Your task to perform on an android device: Find coffee shops on Maps Image 0: 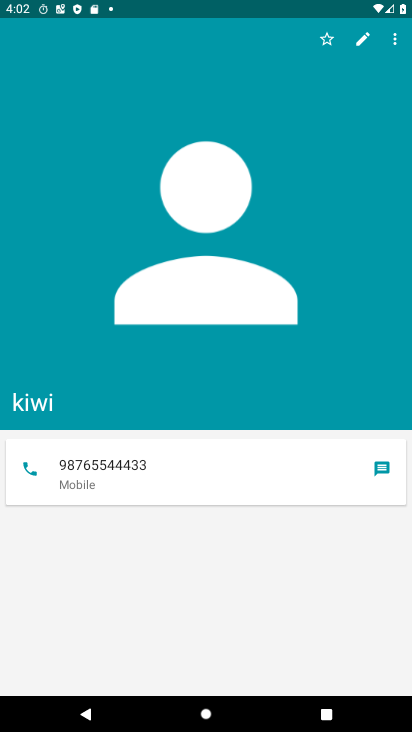
Step 0: press home button
Your task to perform on an android device: Find coffee shops on Maps Image 1: 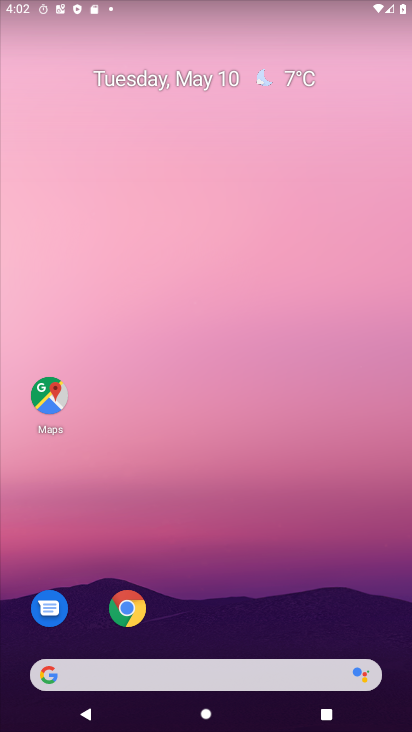
Step 1: click (42, 397)
Your task to perform on an android device: Find coffee shops on Maps Image 2: 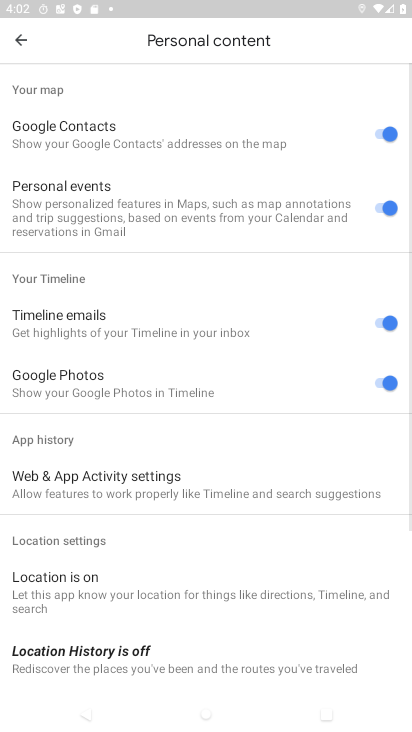
Step 2: click (17, 44)
Your task to perform on an android device: Find coffee shops on Maps Image 3: 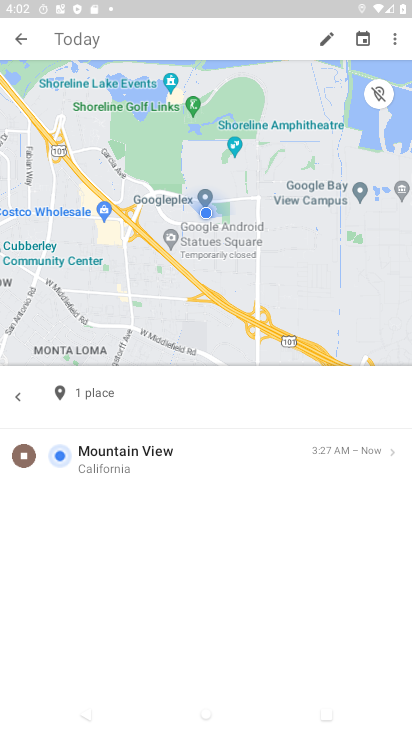
Step 3: click (17, 44)
Your task to perform on an android device: Find coffee shops on Maps Image 4: 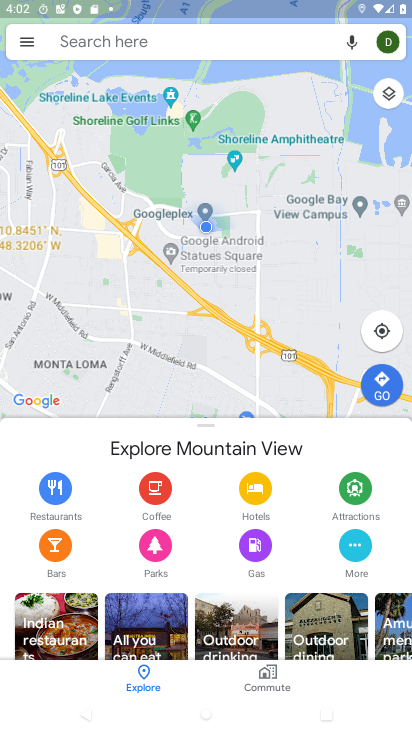
Step 4: click (79, 46)
Your task to perform on an android device: Find coffee shops on Maps Image 5: 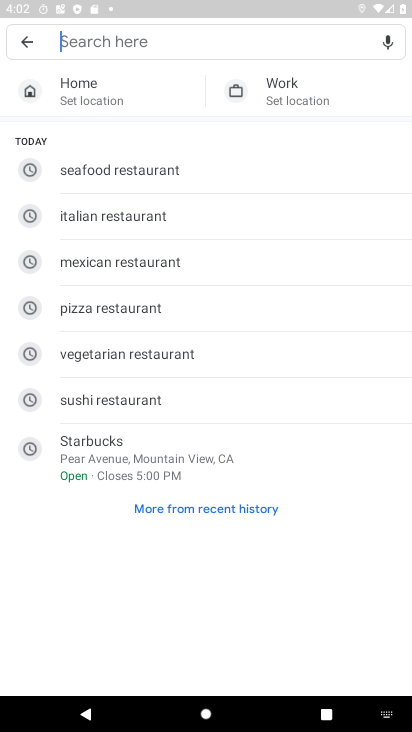
Step 5: type "coffee shop"
Your task to perform on an android device: Find coffee shops on Maps Image 6: 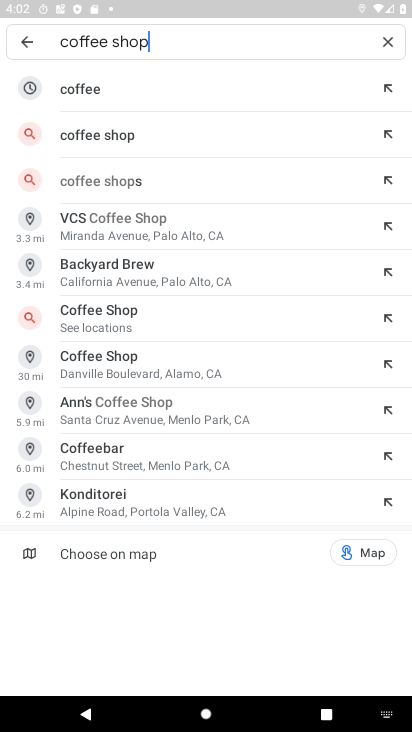
Step 6: click (62, 131)
Your task to perform on an android device: Find coffee shops on Maps Image 7: 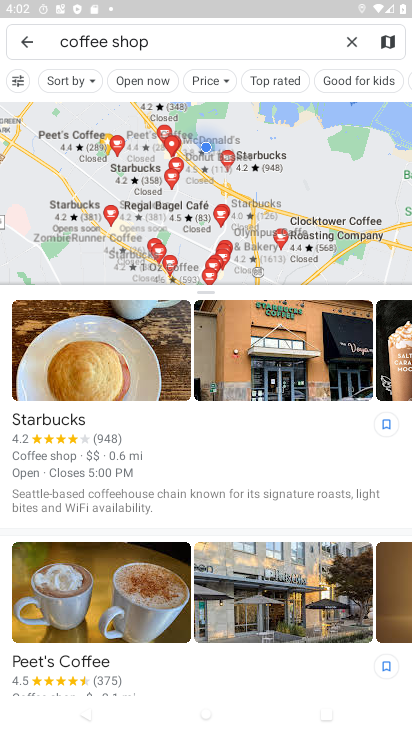
Step 7: task complete